Your task to perform on an android device: toggle translation in the chrome app Image 0: 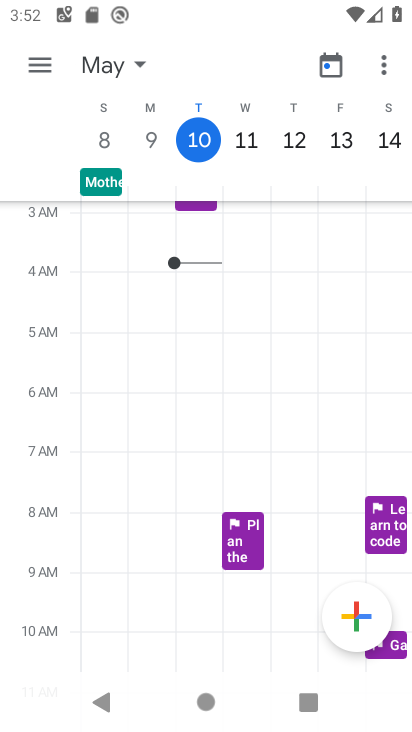
Step 0: press home button
Your task to perform on an android device: toggle translation in the chrome app Image 1: 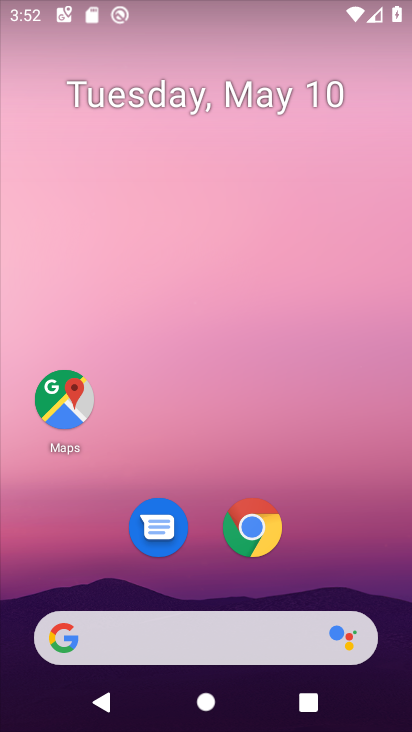
Step 1: click (253, 523)
Your task to perform on an android device: toggle translation in the chrome app Image 2: 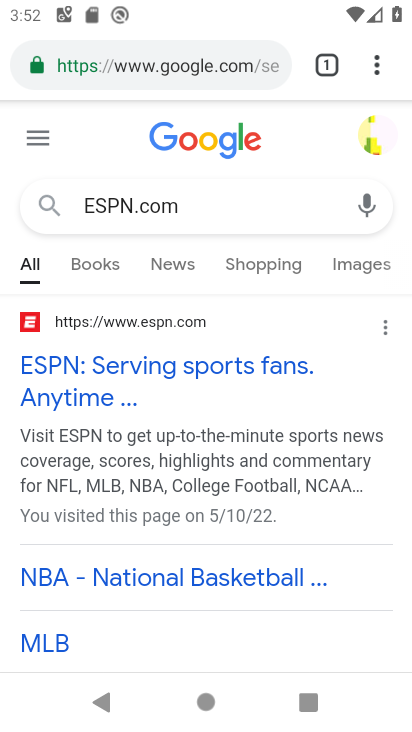
Step 2: click (378, 62)
Your task to perform on an android device: toggle translation in the chrome app Image 3: 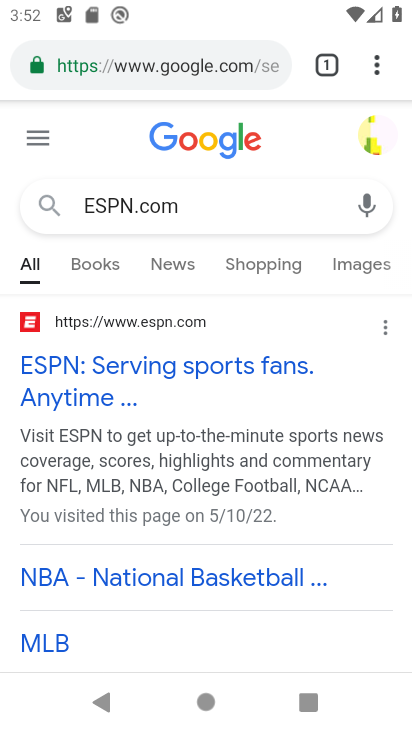
Step 3: click (376, 59)
Your task to perform on an android device: toggle translation in the chrome app Image 4: 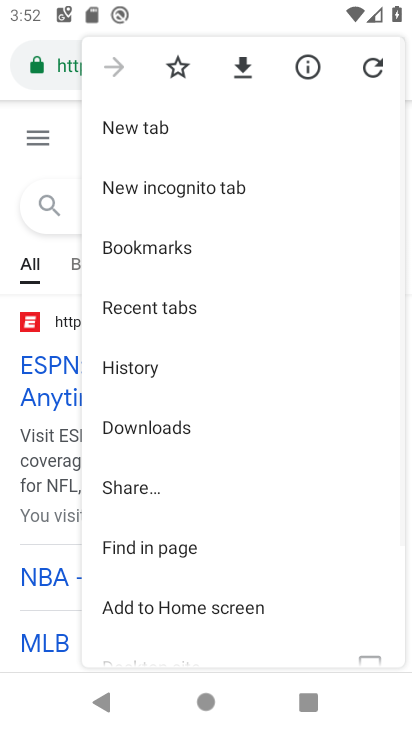
Step 4: drag from (306, 608) to (318, 295)
Your task to perform on an android device: toggle translation in the chrome app Image 5: 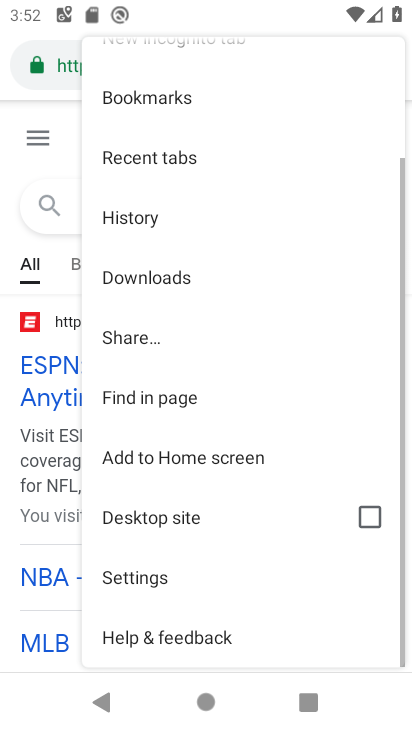
Step 5: drag from (290, 531) to (299, 343)
Your task to perform on an android device: toggle translation in the chrome app Image 6: 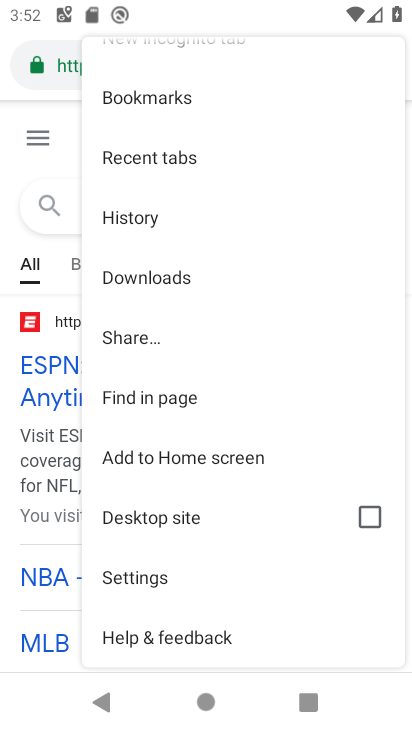
Step 6: drag from (278, 618) to (288, 296)
Your task to perform on an android device: toggle translation in the chrome app Image 7: 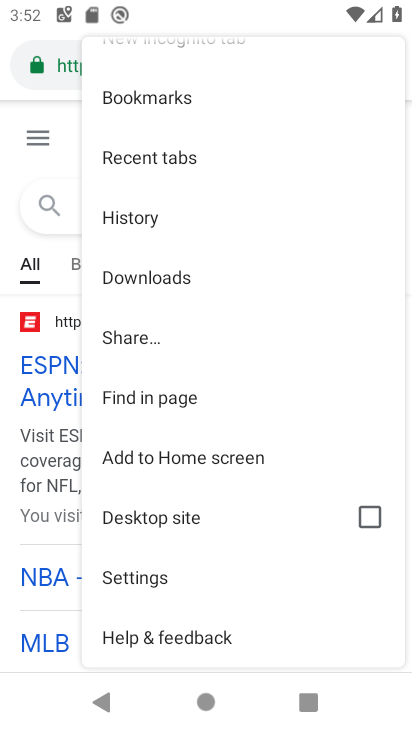
Step 7: click (123, 581)
Your task to perform on an android device: toggle translation in the chrome app Image 8: 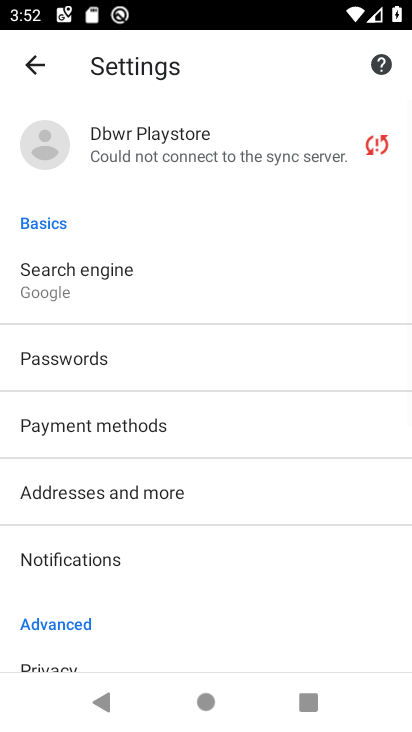
Step 8: drag from (234, 628) to (252, 257)
Your task to perform on an android device: toggle translation in the chrome app Image 9: 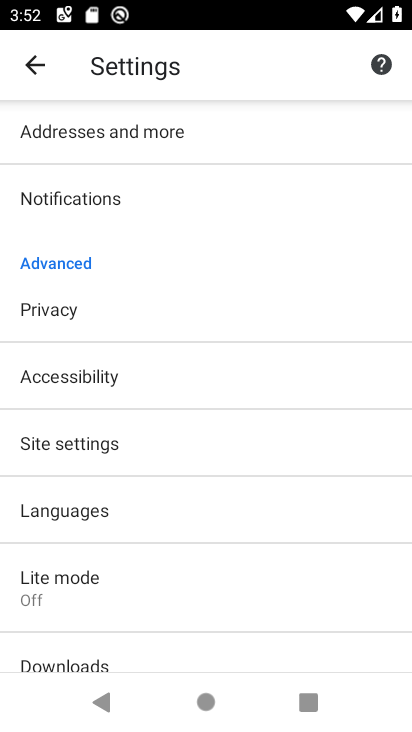
Step 9: click (41, 510)
Your task to perform on an android device: toggle translation in the chrome app Image 10: 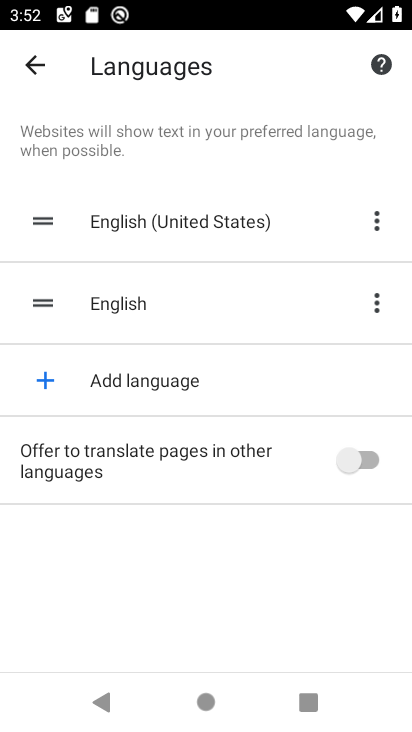
Step 10: click (367, 453)
Your task to perform on an android device: toggle translation in the chrome app Image 11: 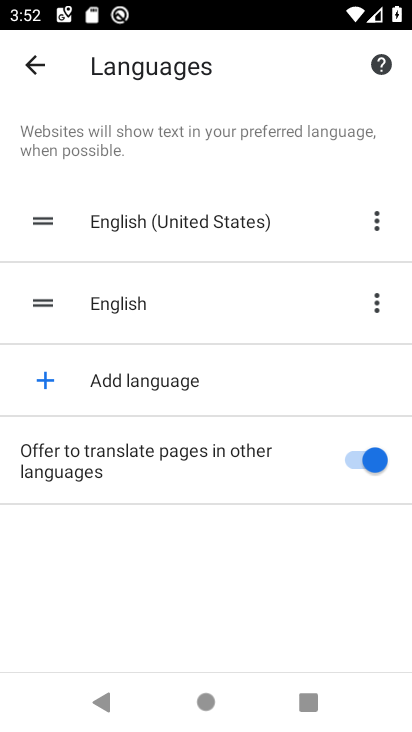
Step 11: task complete